Your task to perform on an android device: Open Chrome and go to settings Image 0: 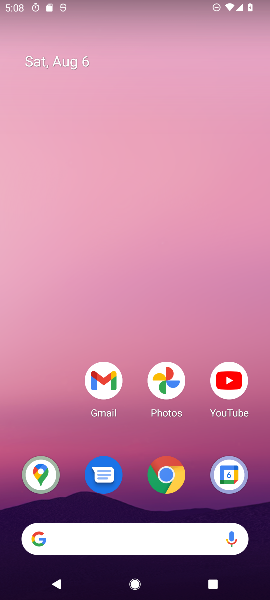
Step 0: click (163, 477)
Your task to perform on an android device: Open Chrome and go to settings Image 1: 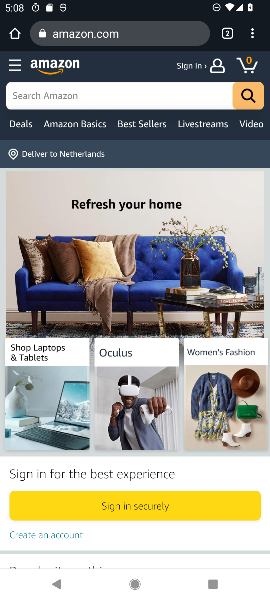
Step 1: click (252, 34)
Your task to perform on an android device: Open Chrome and go to settings Image 2: 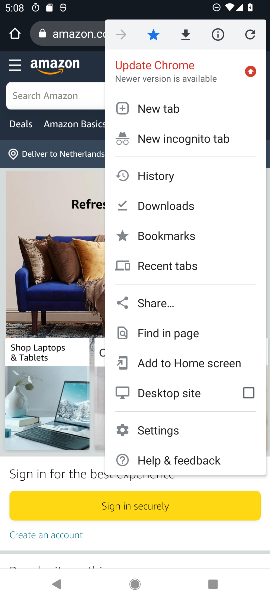
Step 2: click (142, 427)
Your task to perform on an android device: Open Chrome and go to settings Image 3: 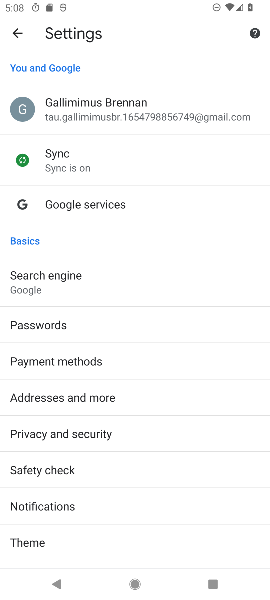
Step 3: task complete